Your task to perform on an android device: all mails in gmail Image 0: 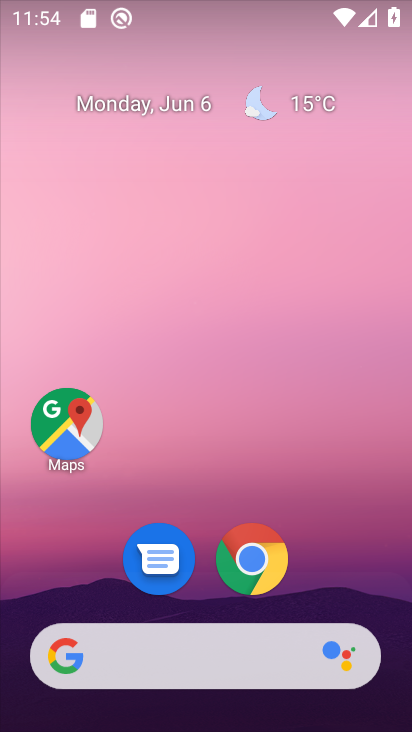
Step 0: drag from (341, 556) to (335, 49)
Your task to perform on an android device: all mails in gmail Image 1: 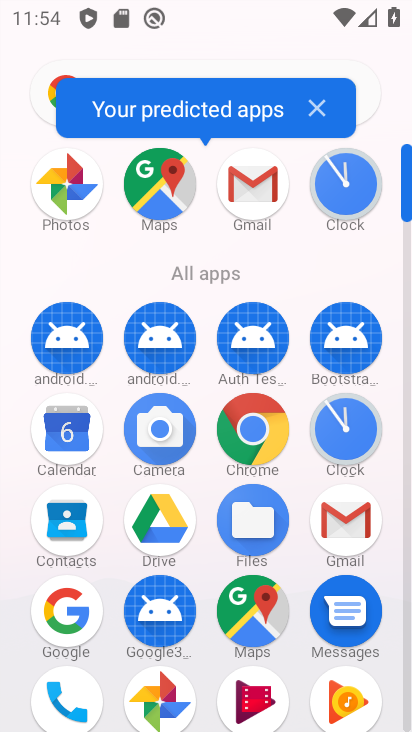
Step 1: click (260, 174)
Your task to perform on an android device: all mails in gmail Image 2: 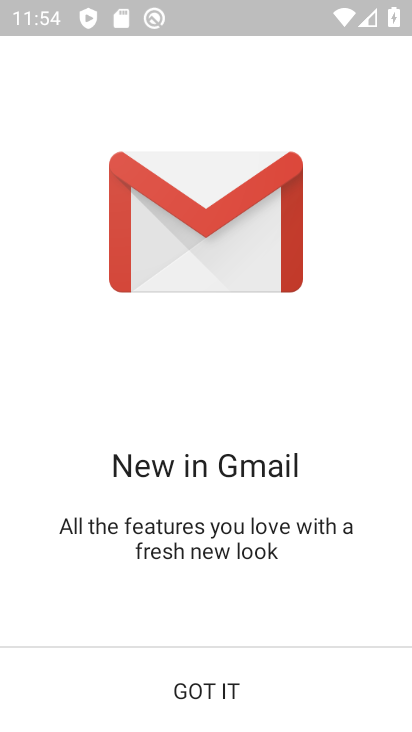
Step 2: click (314, 717)
Your task to perform on an android device: all mails in gmail Image 3: 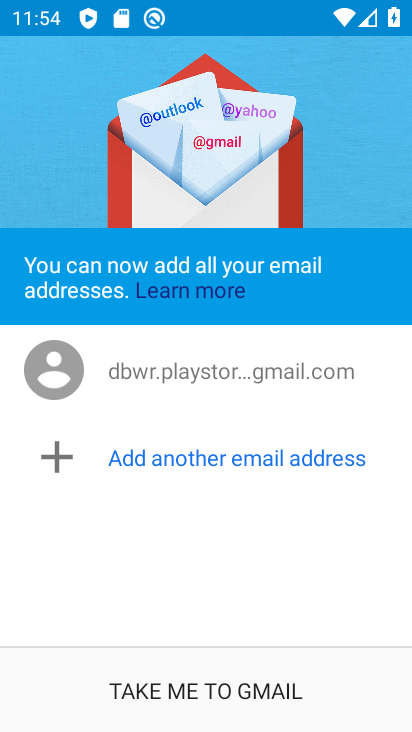
Step 3: click (316, 708)
Your task to perform on an android device: all mails in gmail Image 4: 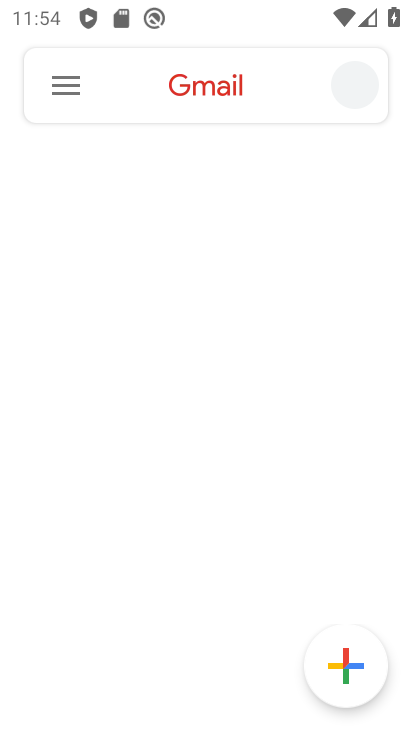
Step 4: click (73, 79)
Your task to perform on an android device: all mails in gmail Image 5: 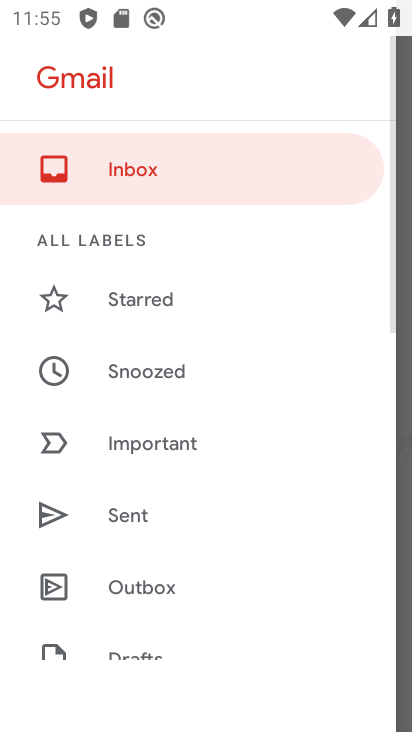
Step 5: drag from (235, 503) to (270, 138)
Your task to perform on an android device: all mails in gmail Image 6: 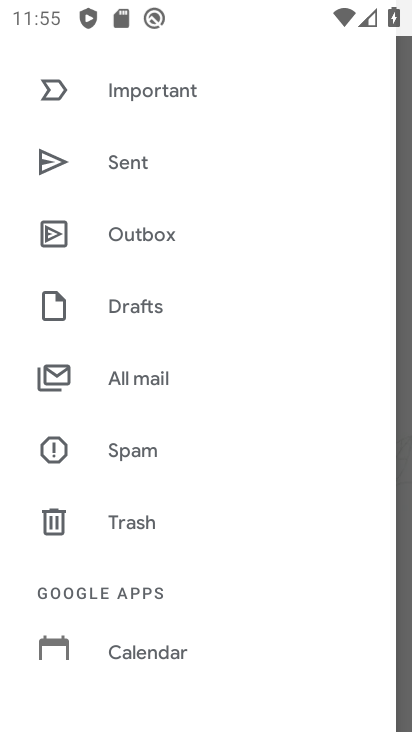
Step 6: click (230, 368)
Your task to perform on an android device: all mails in gmail Image 7: 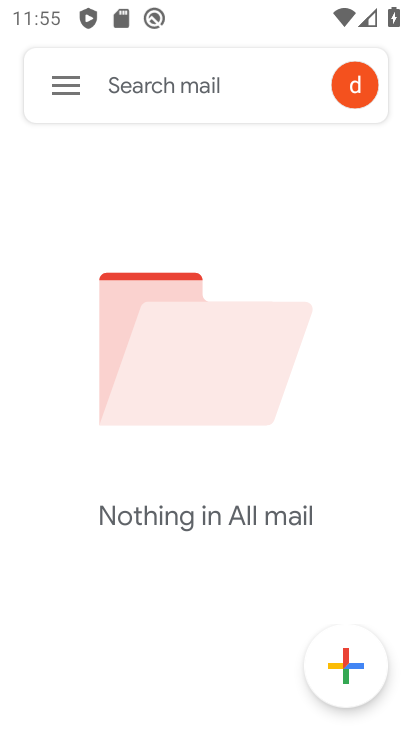
Step 7: task complete